Your task to perform on an android device: manage bookmarks in the chrome app Image 0: 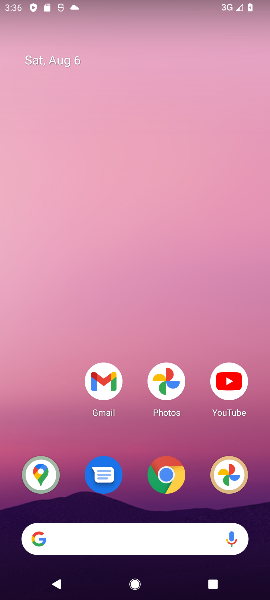
Step 0: click (172, 480)
Your task to perform on an android device: manage bookmarks in the chrome app Image 1: 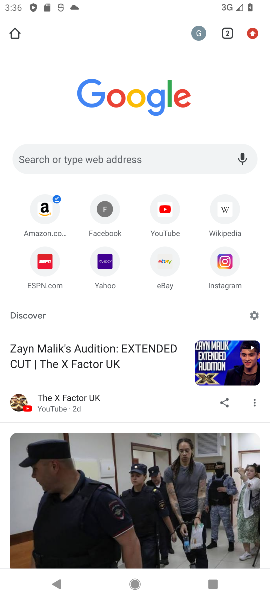
Step 1: click (255, 32)
Your task to perform on an android device: manage bookmarks in the chrome app Image 2: 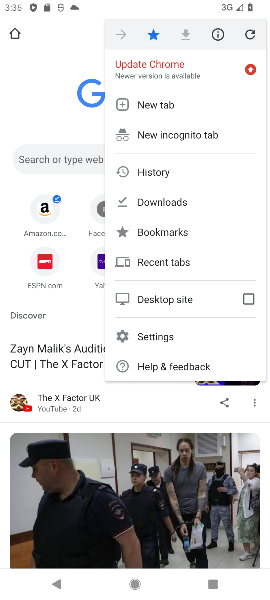
Step 2: click (169, 230)
Your task to perform on an android device: manage bookmarks in the chrome app Image 3: 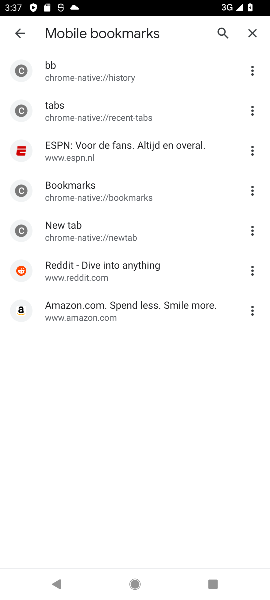
Step 3: task complete